Your task to perform on an android device: check out phone information Image 0: 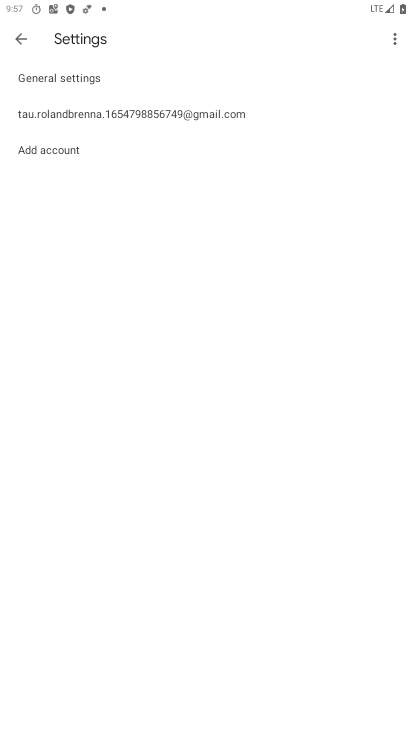
Step 0: press back button
Your task to perform on an android device: check out phone information Image 1: 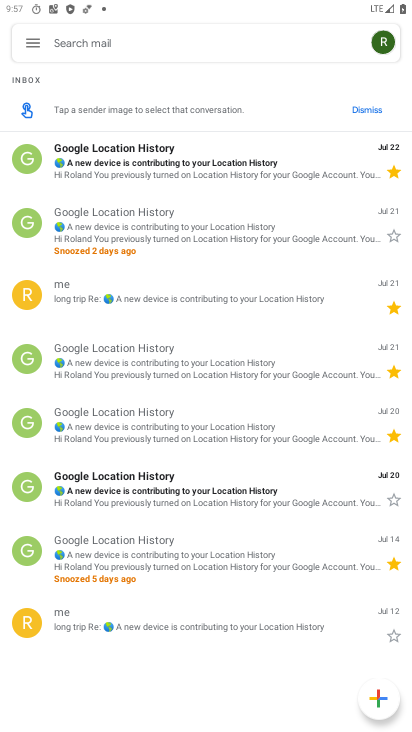
Step 1: press home button
Your task to perform on an android device: check out phone information Image 2: 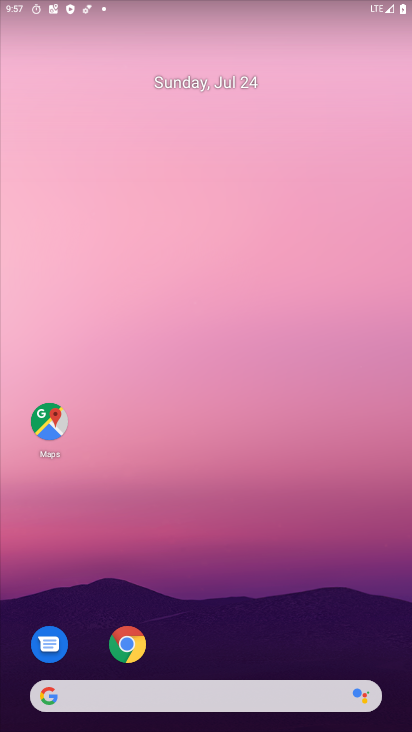
Step 2: drag from (212, 669) to (240, 257)
Your task to perform on an android device: check out phone information Image 3: 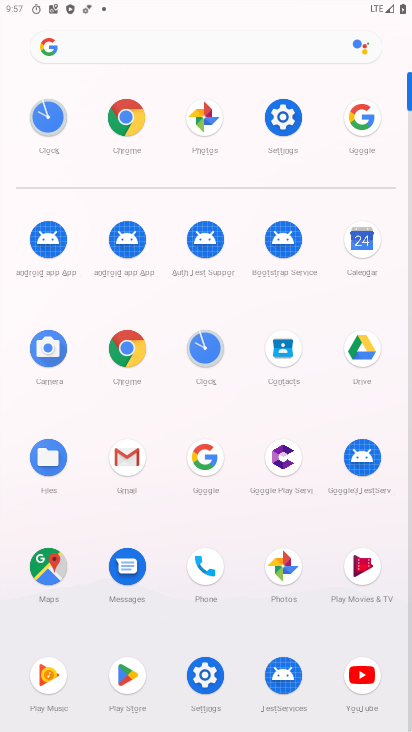
Step 3: click (203, 568)
Your task to perform on an android device: check out phone information Image 4: 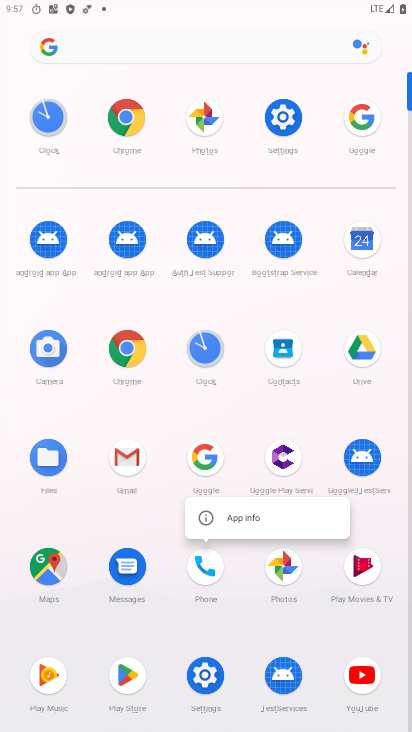
Step 4: click (233, 520)
Your task to perform on an android device: check out phone information Image 5: 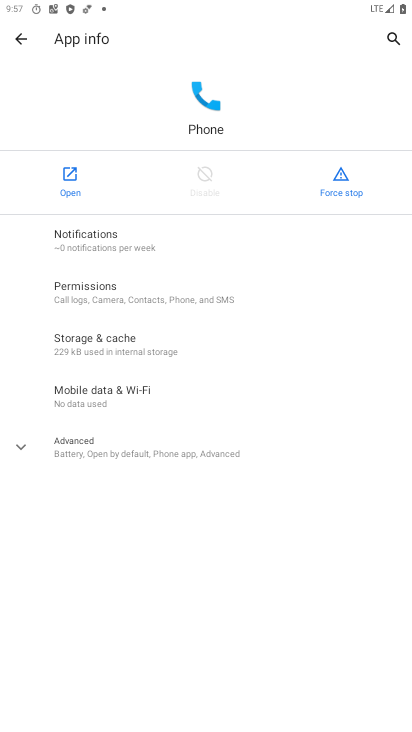
Step 5: click (136, 428)
Your task to perform on an android device: check out phone information Image 6: 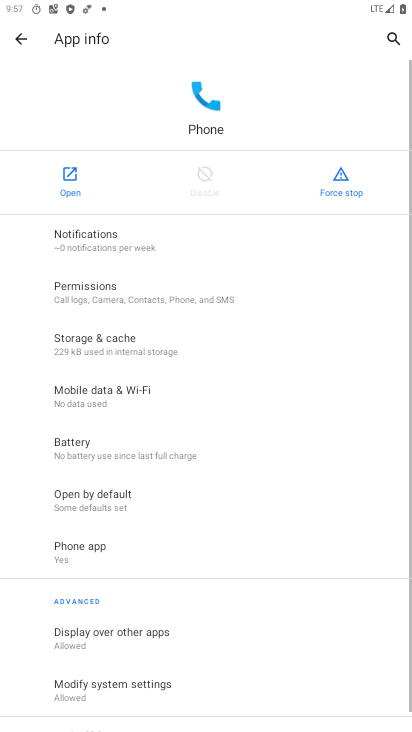
Step 6: task complete